Your task to perform on an android device: snooze an email in the gmail app Image 0: 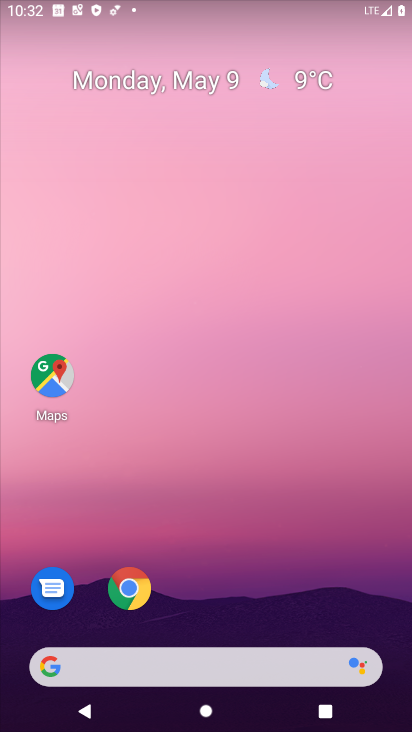
Step 0: drag from (139, 672) to (263, 156)
Your task to perform on an android device: snooze an email in the gmail app Image 1: 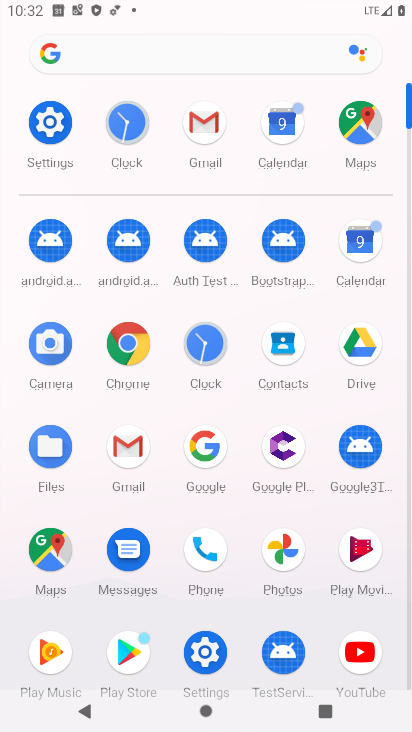
Step 1: click (198, 130)
Your task to perform on an android device: snooze an email in the gmail app Image 2: 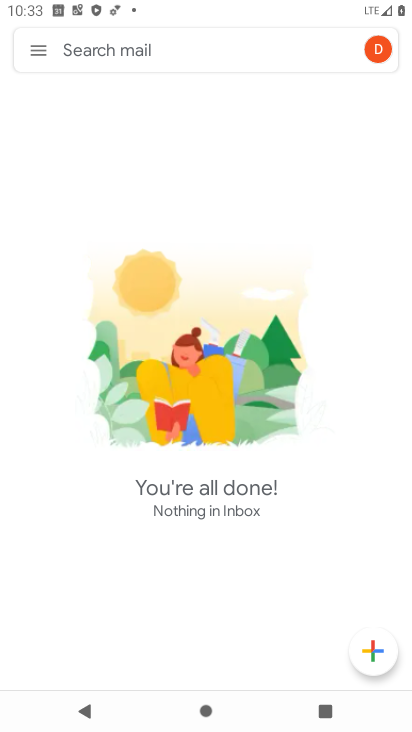
Step 2: task complete